Your task to perform on an android device: Go to Google Image 0: 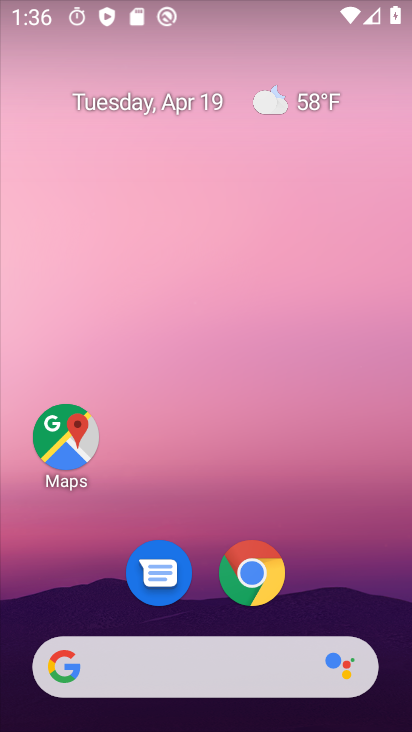
Step 0: drag from (340, 566) to (271, 95)
Your task to perform on an android device: Go to Google Image 1: 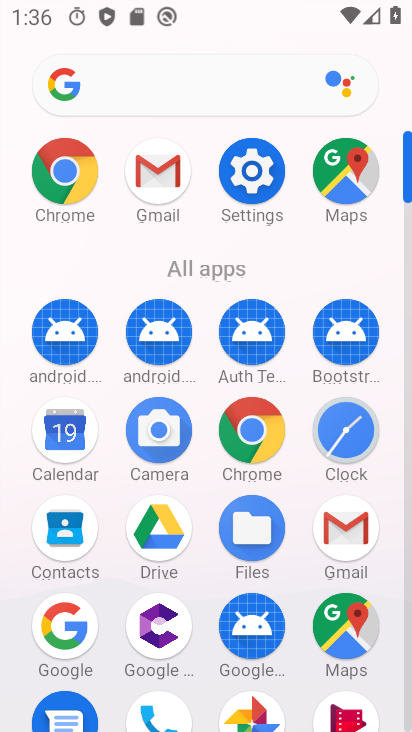
Step 1: click (53, 631)
Your task to perform on an android device: Go to Google Image 2: 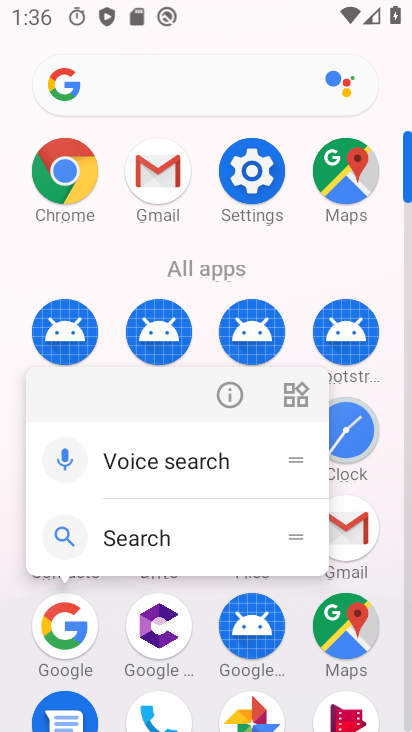
Step 2: click (50, 617)
Your task to perform on an android device: Go to Google Image 3: 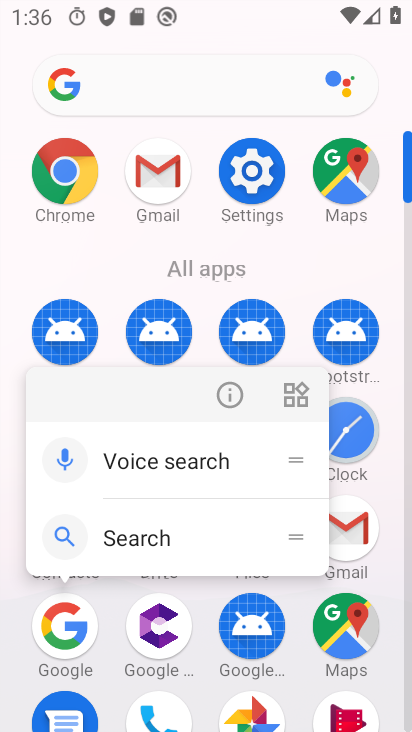
Step 3: click (53, 617)
Your task to perform on an android device: Go to Google Image 4: 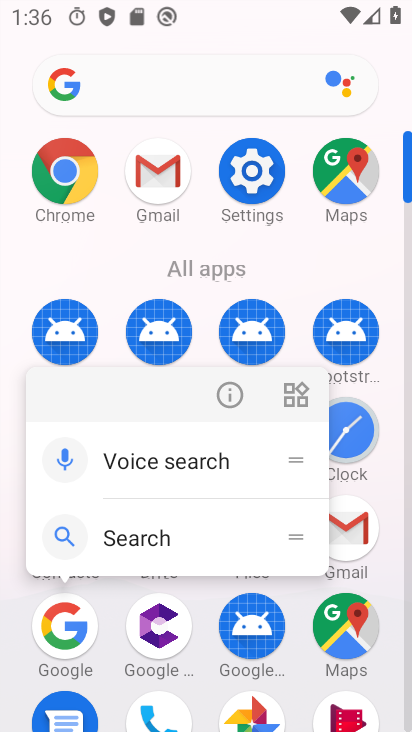
Step 4: click (51, 614)
Your task to perform on an android device: Go to Google Image 5: 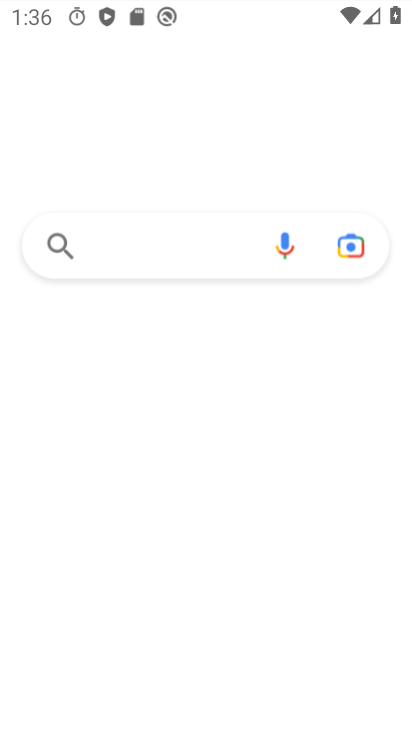
Step 5: click (69, 628)
Your task to perform on an android device: Go to Google Image 6: 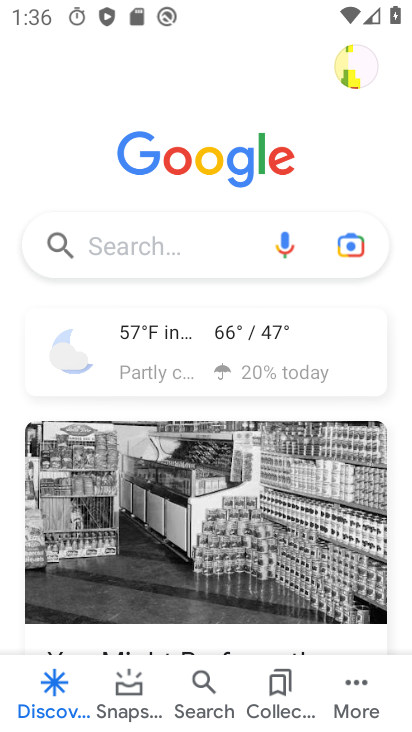
Step 6: task complete